Your task to perform on an android device: check battery use Image 0: 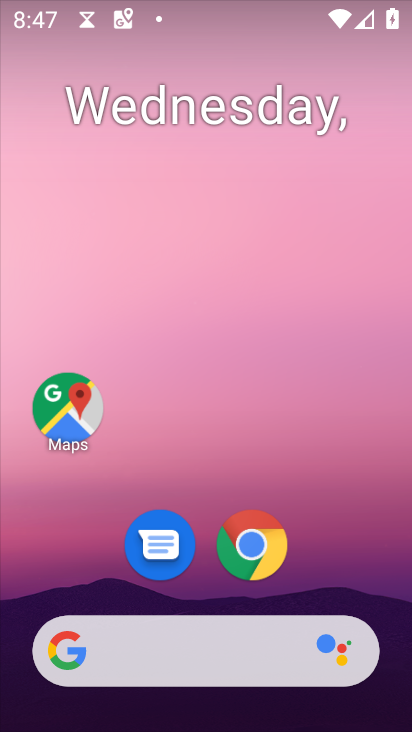
Step 0: drag from (177, 655) to (322, 161)
Your task to perform on an android device: check battery use Image 1: 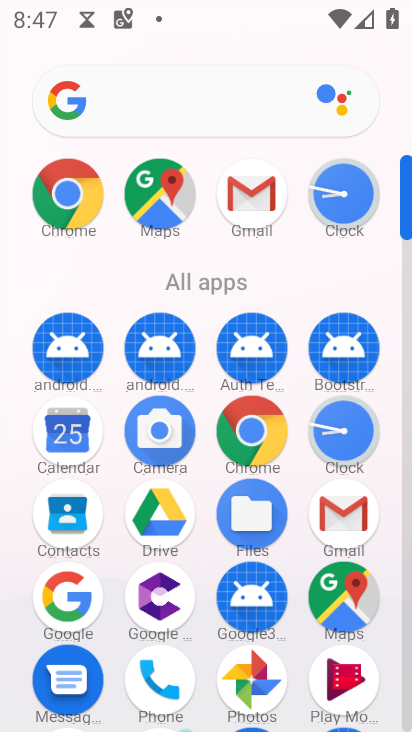
Step 1: drag from (214, 530) to (326, 209)
Your task to perform on an android device: check battery use Image 2: 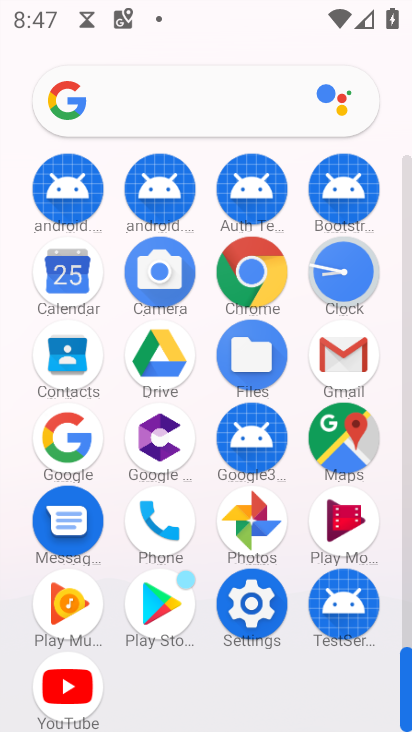
Step 2: click (261, 605)
Your task to perform on an android device: check battery use Image 3: 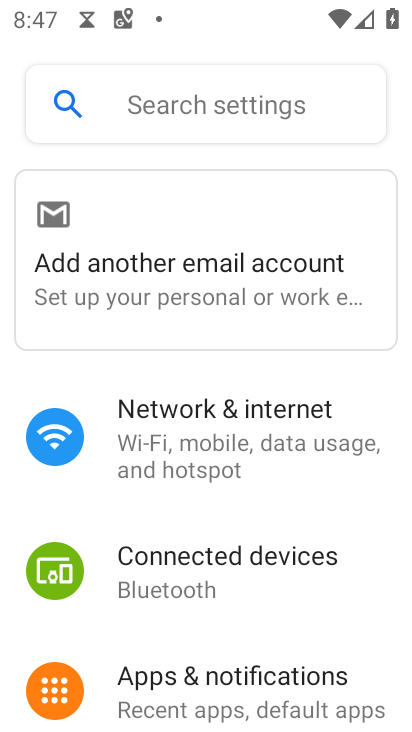
Step 3: drag from (212, 646) to (331, 209)
Your task to perform on an android device: check battery use Image 4: 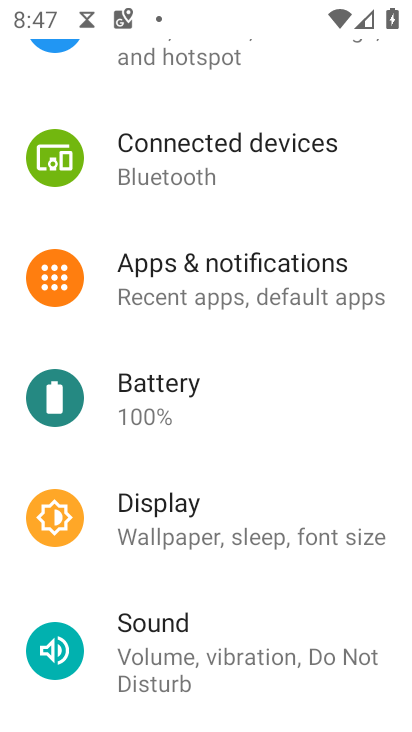
Step 4: drag from (219, 610) to (269, 406)
Your task to perform on an android device: check battery use Image 5: 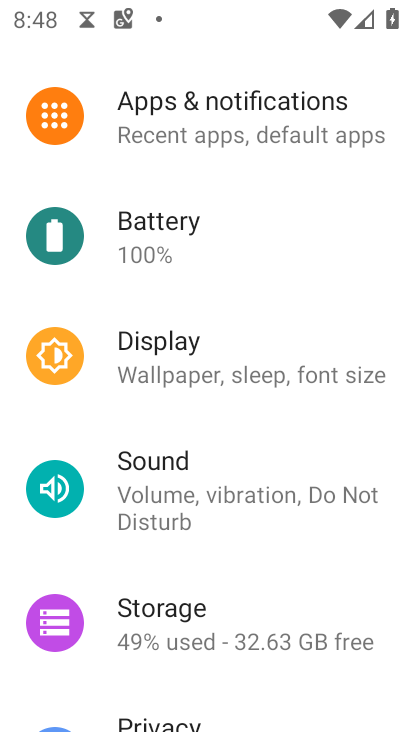
Step 5: click (157, 234)
Your task to perform on an android device: check battery use Image 6: 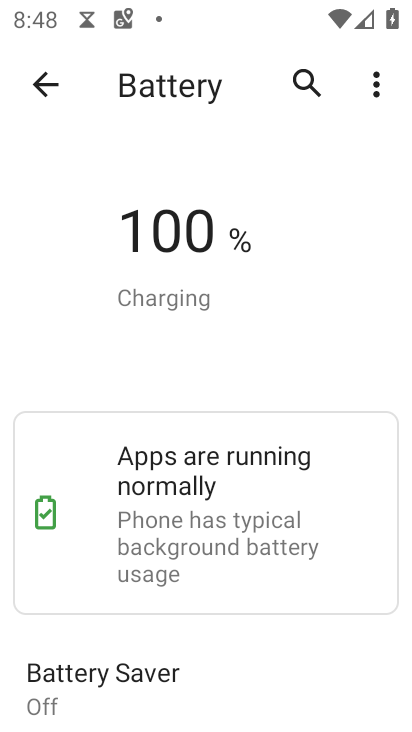
Step 6: task complete